Your task to perform on an android device: Go to Google maps Image 0: 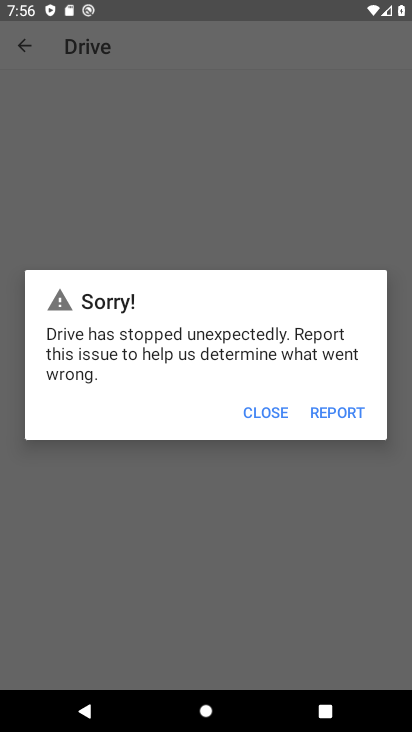
Step 0: press home button
Your task to perform on an android device: Go to Google maps Image 1: 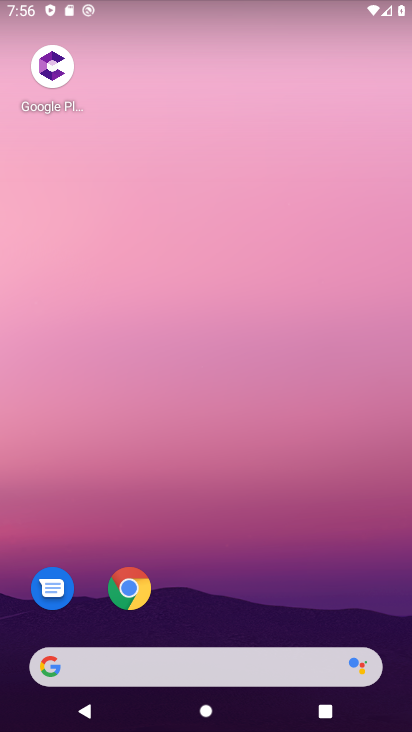
Step 1: drag from (223, 650) to (204, 262)
Your task to perform on an android device: Go to Google maps Image 2: 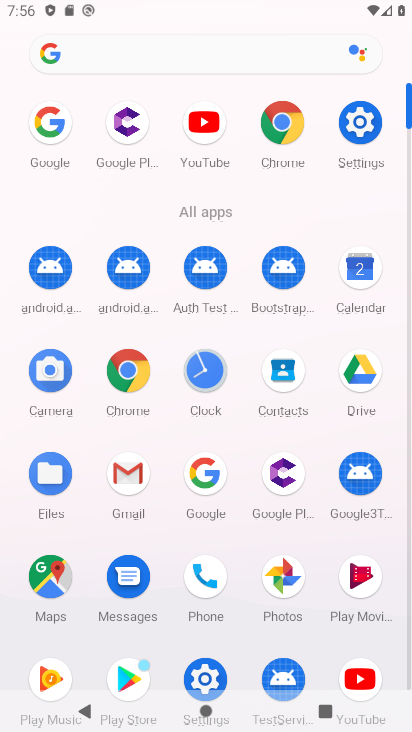
Step 2: click (45, 566)
Your task to perform on an android device: Go to Google maps Image 3: 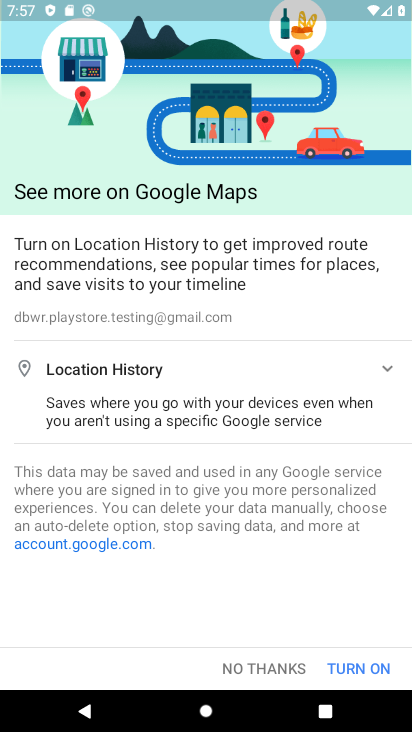
Step 3: task complete